Your task to perform on an android device: Go to Google Image 0: 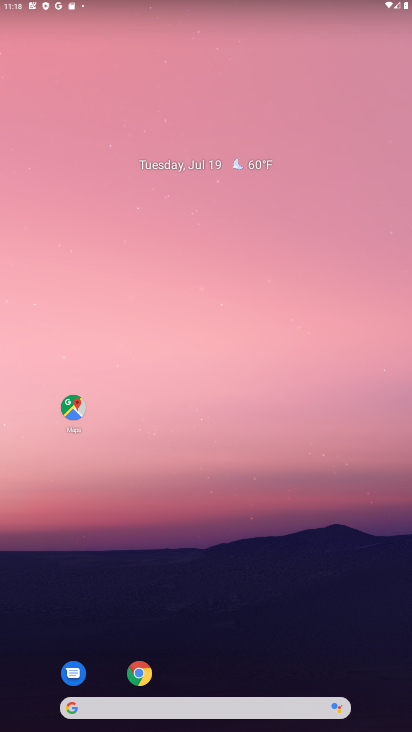
Step 0: click (141, 673)
Your task to perform on an android device: Go to Google Image 1: 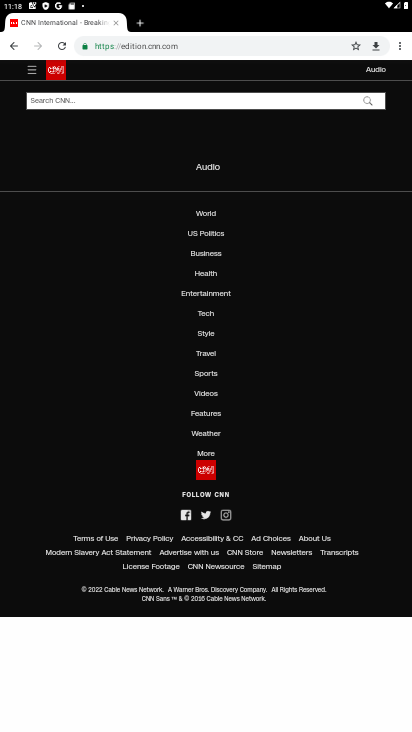
Step 1: task complete